Your task to perform on an android device: Add macbook to the cart on costco, then select checkout. Image 0: 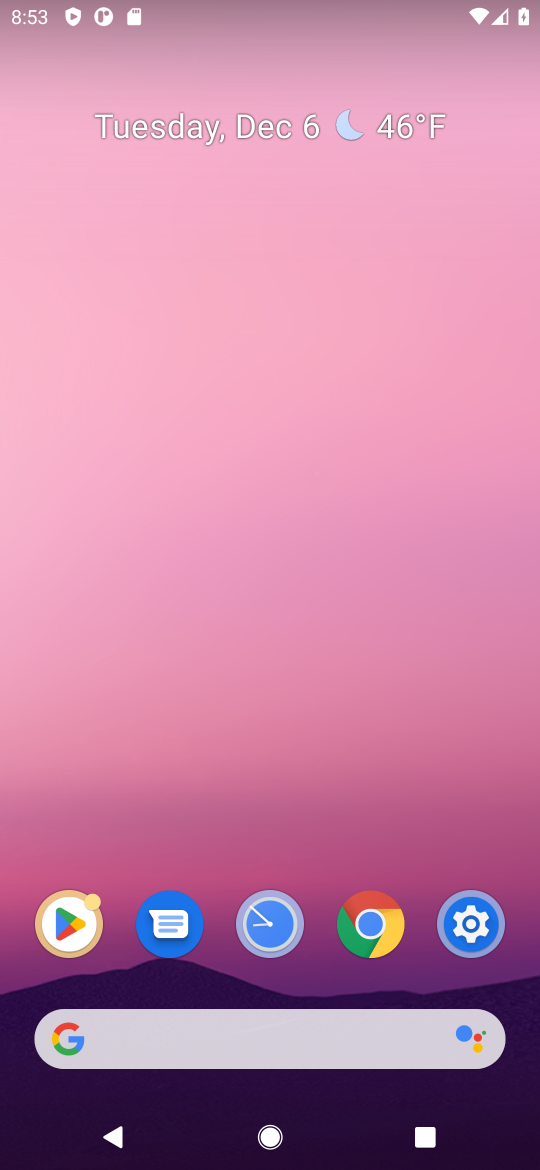
Step 0: click (377, 1012)
Your task to perform on an android device: Add macbook to the cart on costco, then select checkout. Image 1: 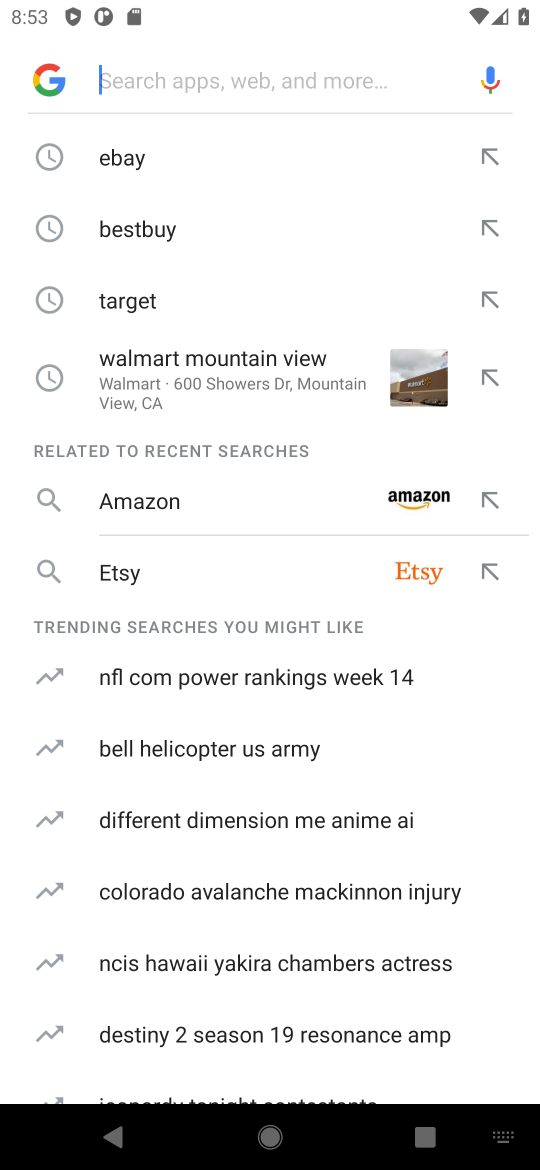
Step 1: type "costco"
Your task to perform on an android device: Add macbook to the cart on costco, then select checkout. Image 2: 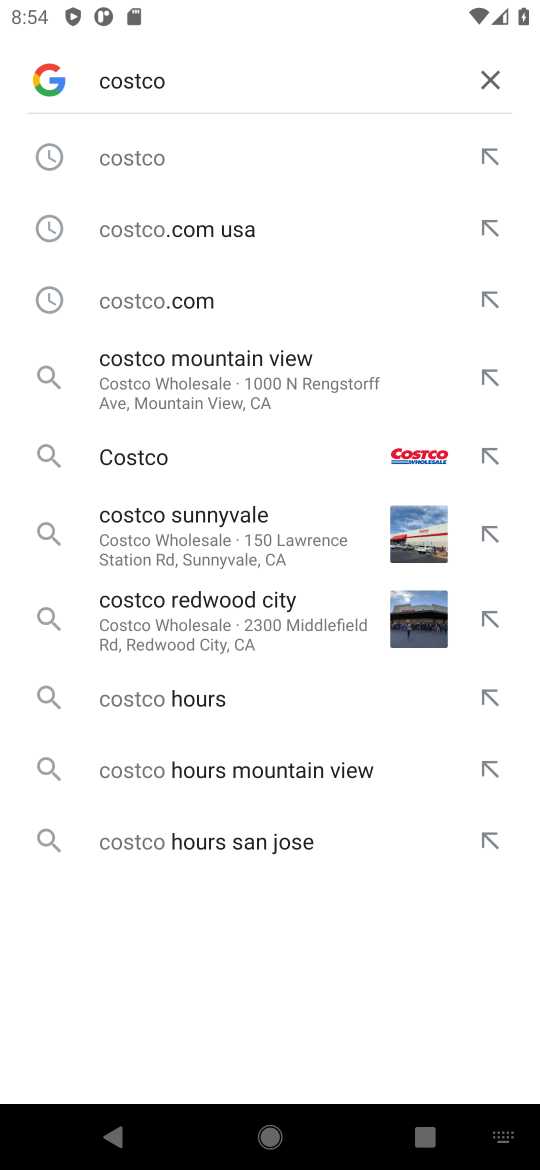
Step 2: click (136, 181)
Your task to perform on an android device: Add macbook to the cart on costco, then select checkout. Image 3: 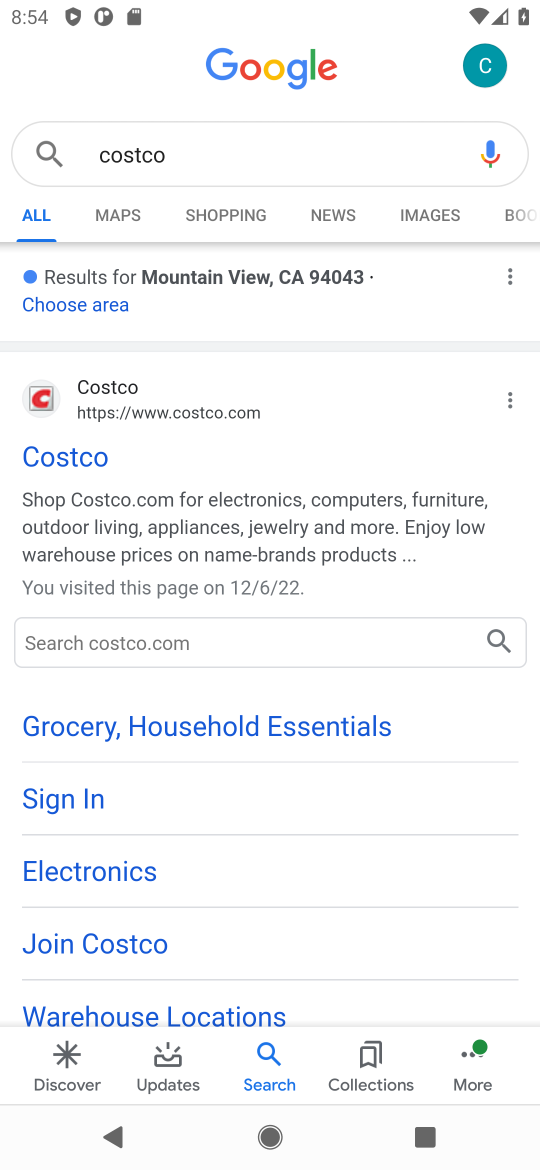
Step 3: click (99, 463)
Your task to perform on an android device: Add macbook to the cart on costco, then select checkout. Image 4: 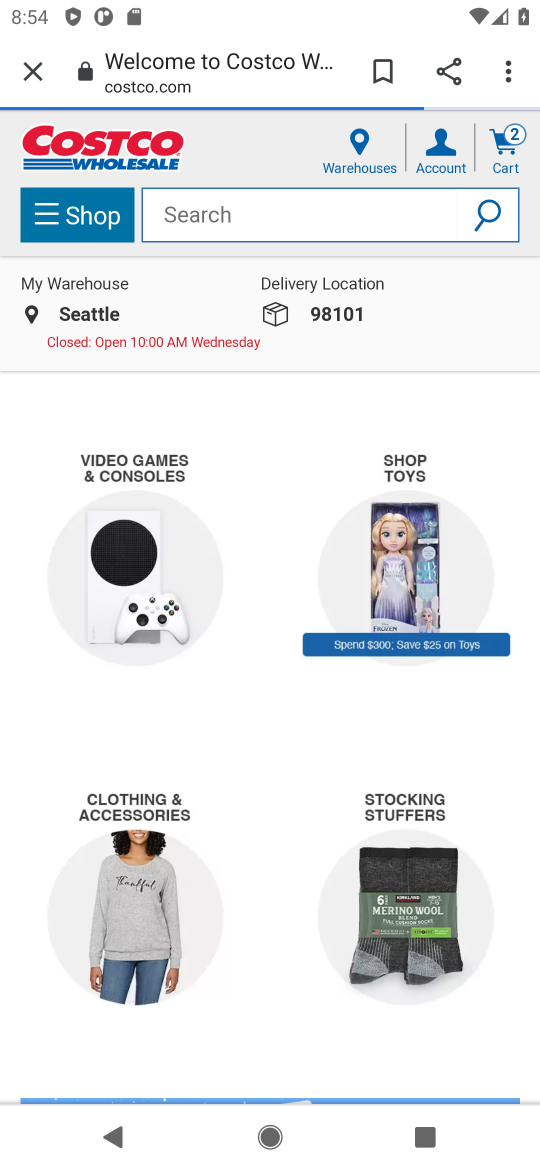
Step 4: task complete